Your task to perform on an android device: turn on improve location accuracy Image 0: 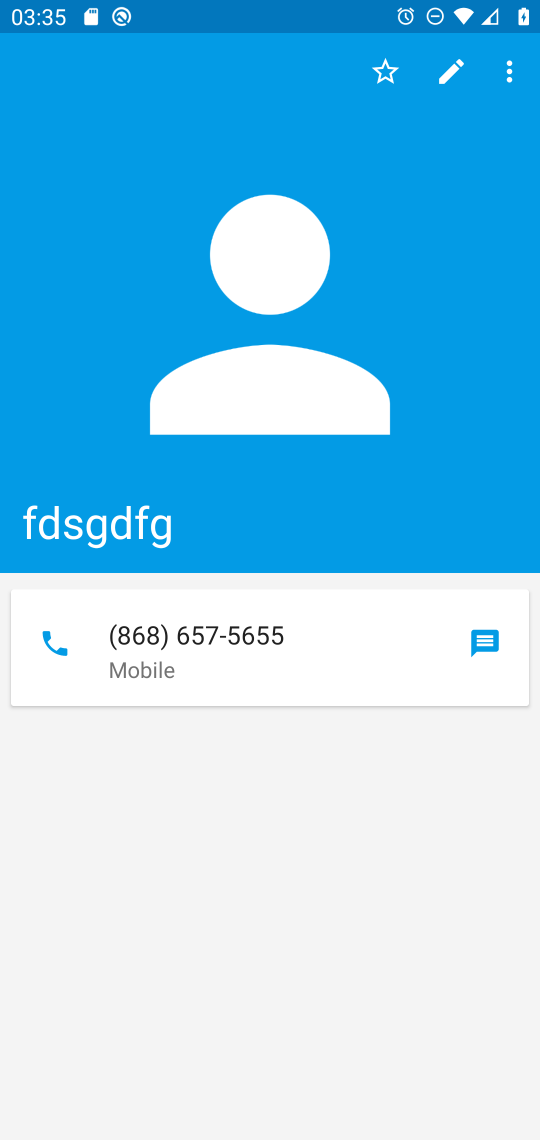
Step 0: press home button
Your task to perform on an android device: turn on improve location accuracy Image 1: 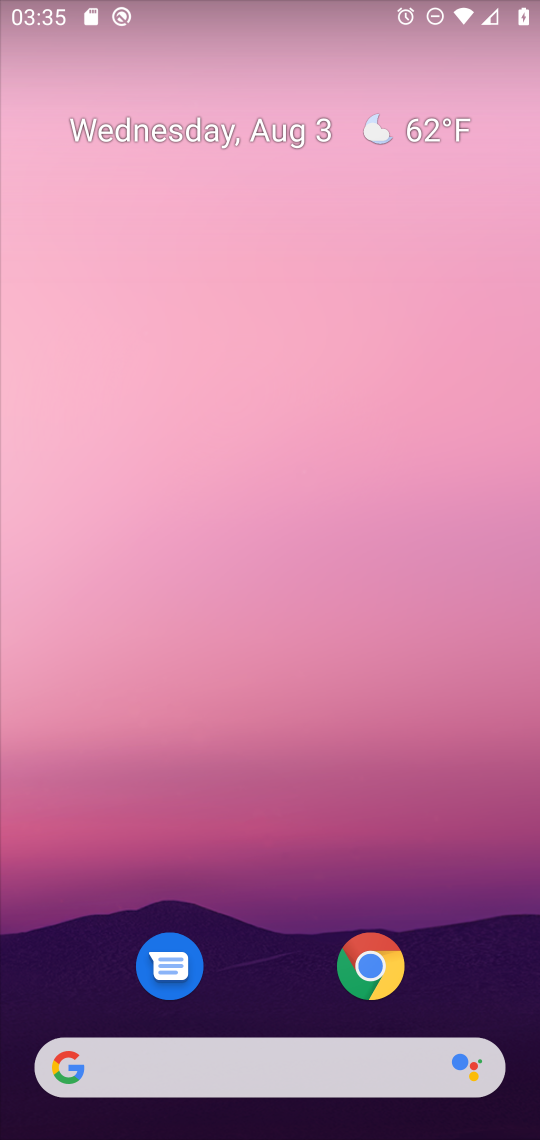
Step 1: drag from (245, 949) to (245, 351)
Your task to perform on an android device: turn on improve location accuracy Image 2: 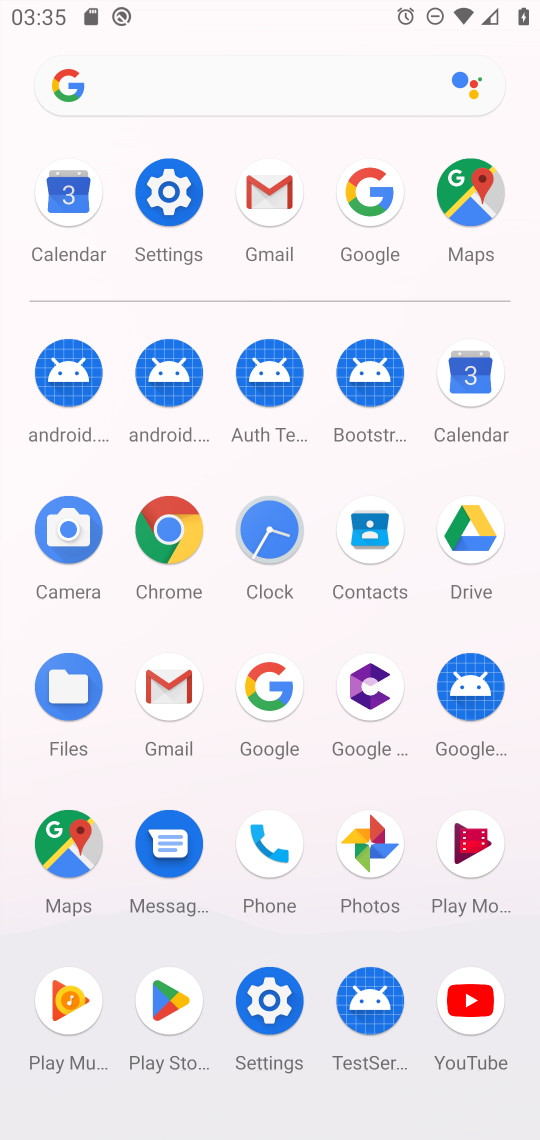
Step 2: click (187, 216)
Your task to perform on an android device: turn on improve location accuracy Image 3: 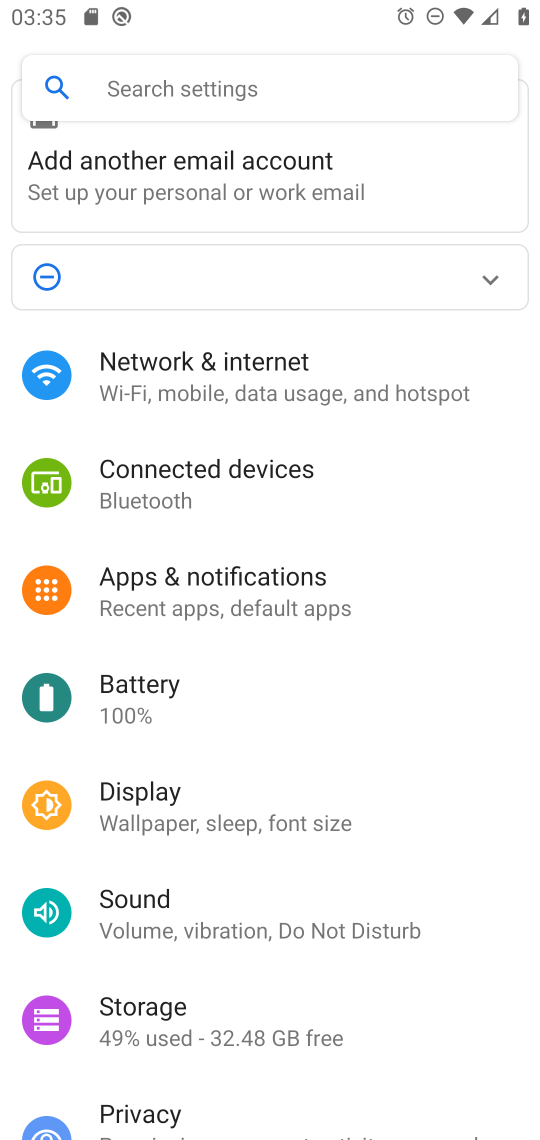
Step 3: drag from (291, 1059) to (257, 502)
Your task to perform on an android device: turn on improve location accuracy Image 4: 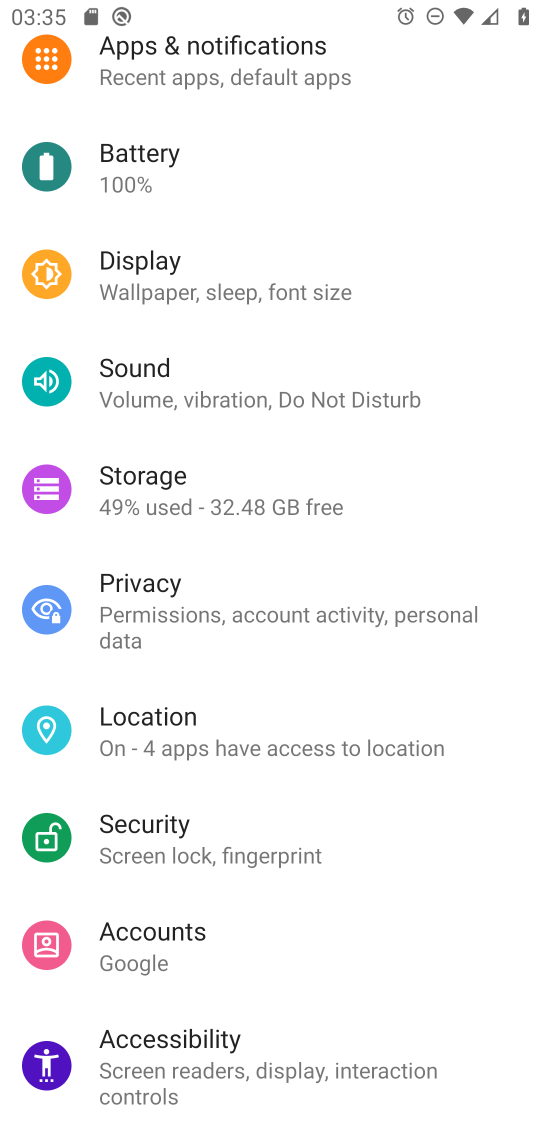
Step 4: click (216, 739)
Your task to perform on an android device: turn on improve location accuracy Image 5: 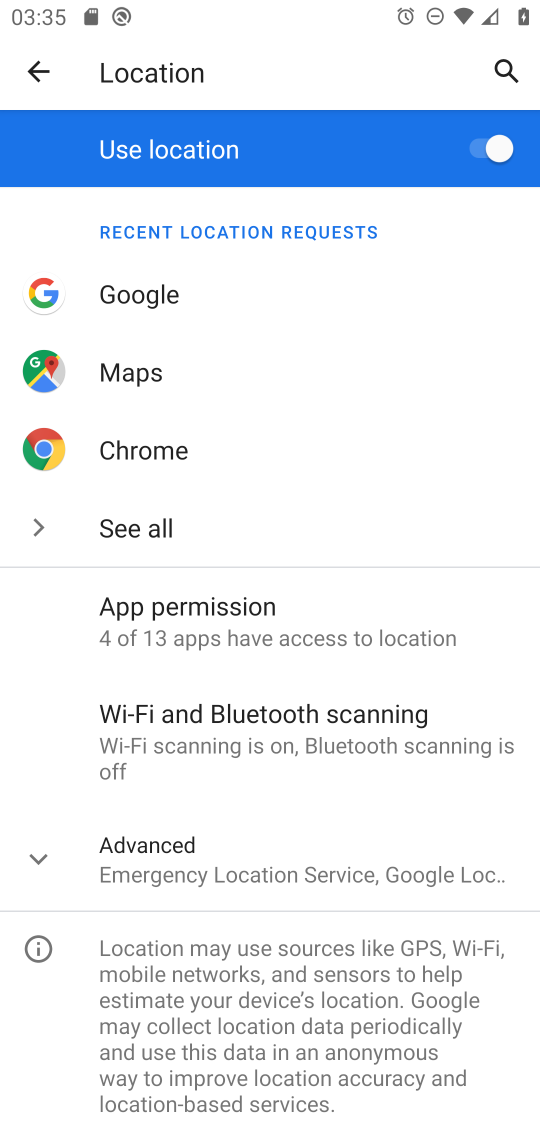
Step 5: click (224, 847)
Your task to perform on an android device: turn on improve location accuracy Image 6: 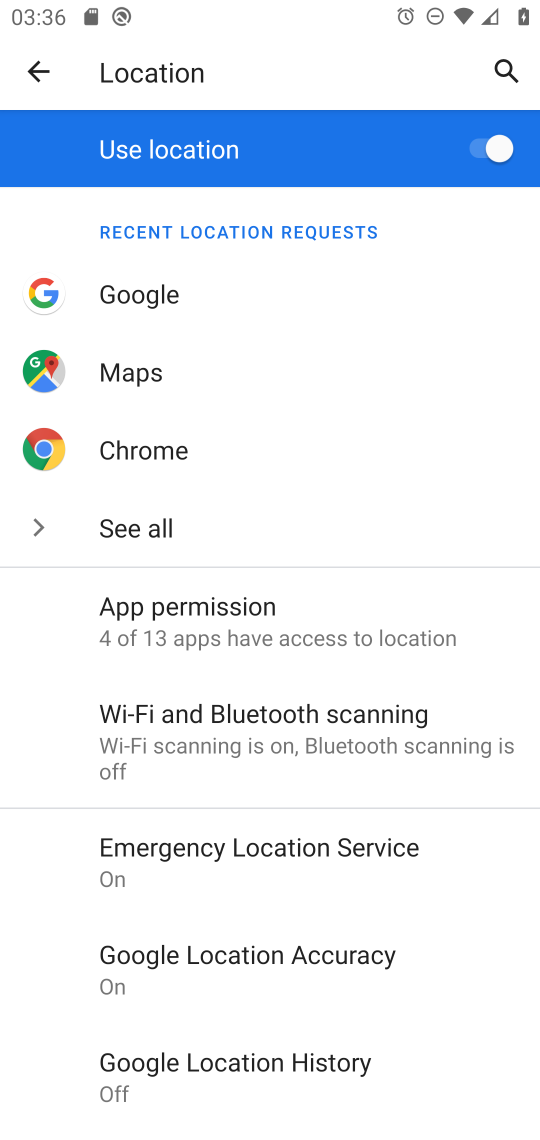
Step 6: click (297, 952)
Your task to perform on an android device: turn on improve location accuracy Image 7: 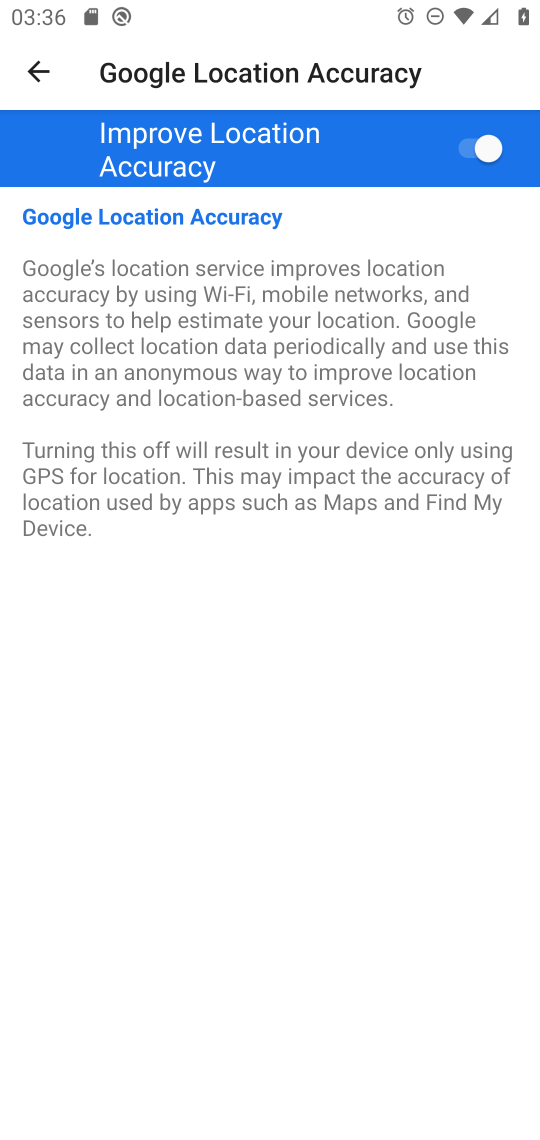
Step 7: task complete